Your task to perform on an android device: check out phone information Image 0: 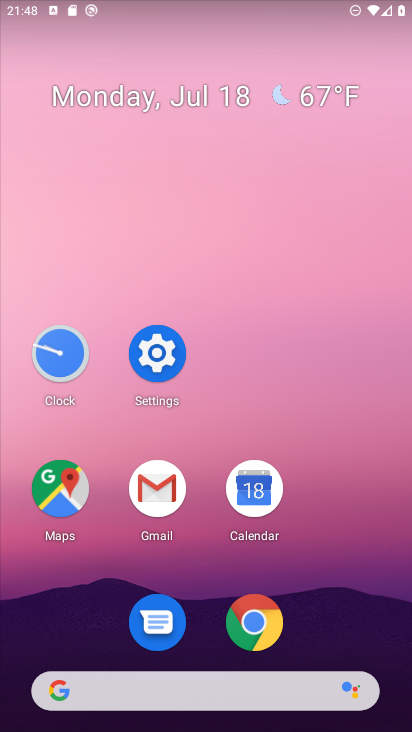
Step 0: click (152, 489)
Your task to perform on an android device: check out phone information Image 1: 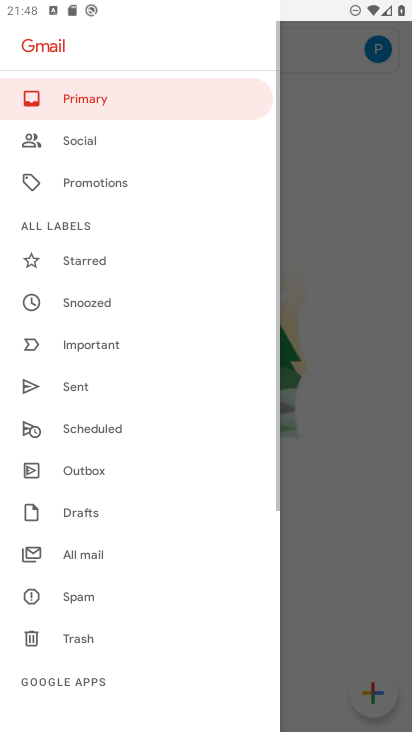
Step 1: press home button
Your task to perform on an android device: check out phone information Image 2: 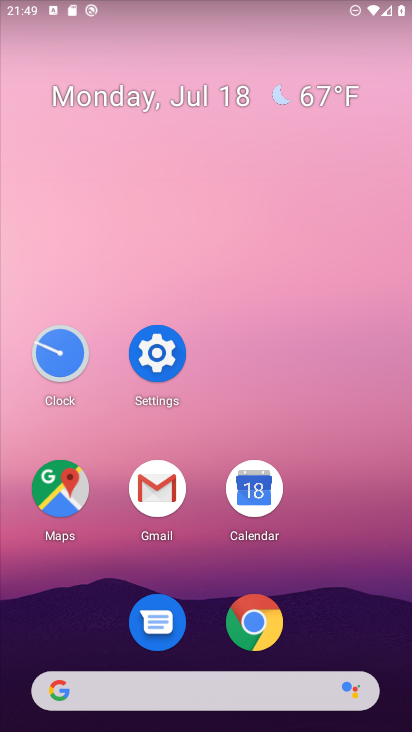
Step 2: click (150, 365)
Your task to perform on an android device: check out phone information Image 3: 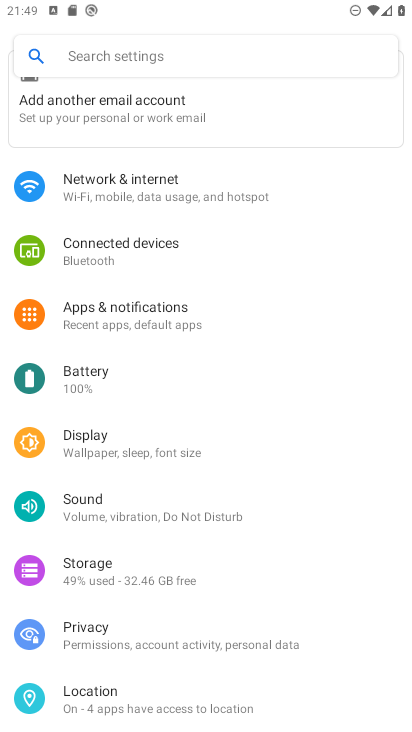
Step 3: drag from (301, 699) to (259, 246)
Your task to perform on an android device: check out phone information Image 4: 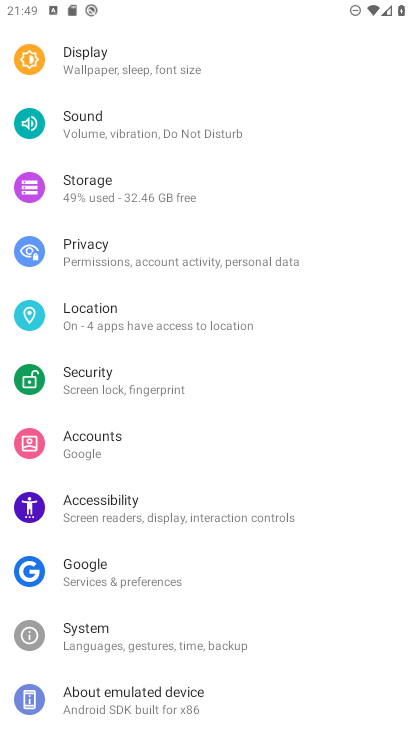
Step 4: click (131, 696)
Your task to perform on an android device: check out phone information Image 5: 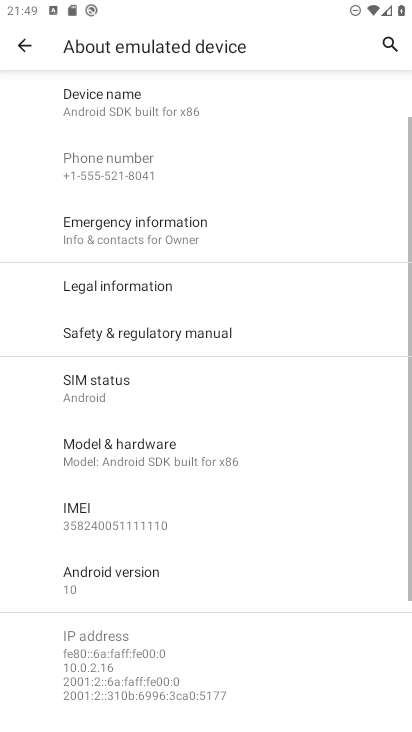
Step 5: task complete